Your task to perform on an android device: Go to Android settings Image 0: 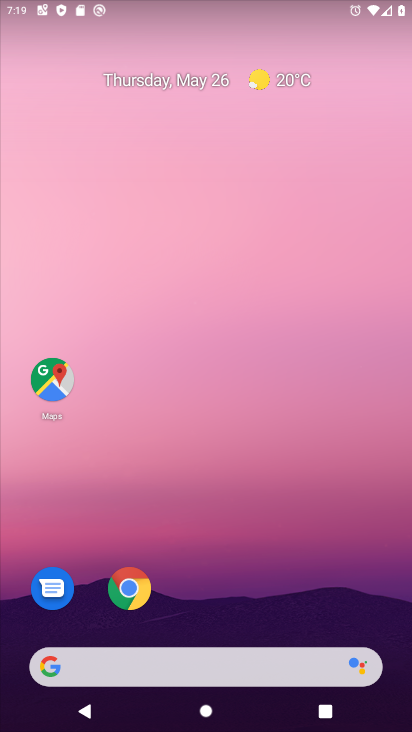
Step 0: drag from (321, 620) to (309, 12)
Your task to perform on an android device: Go to Android settings Image 1: 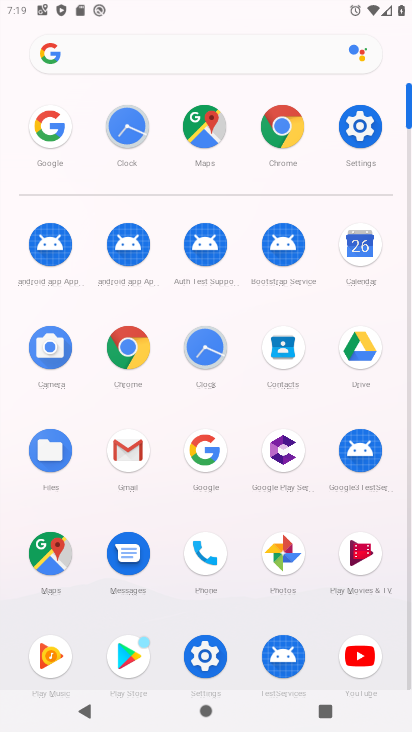
Step 1: click (371, 110)
Your task to perform on an android device: Go to Android settings Image 2: 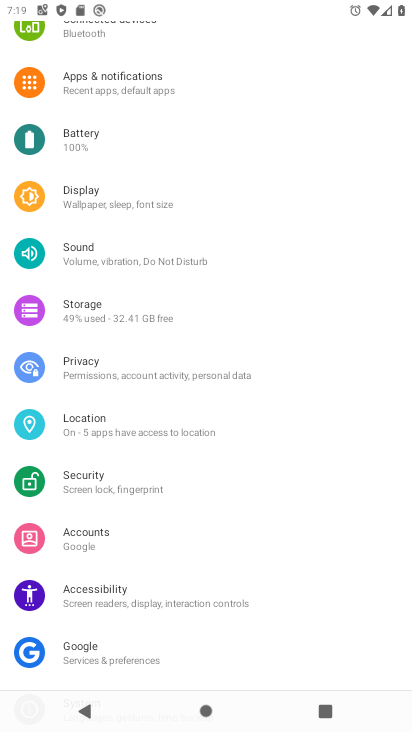
Step 2: drag from (209, 630) to (284, 49)
Your task to perform on an android device: Go to Android settings Image 3: 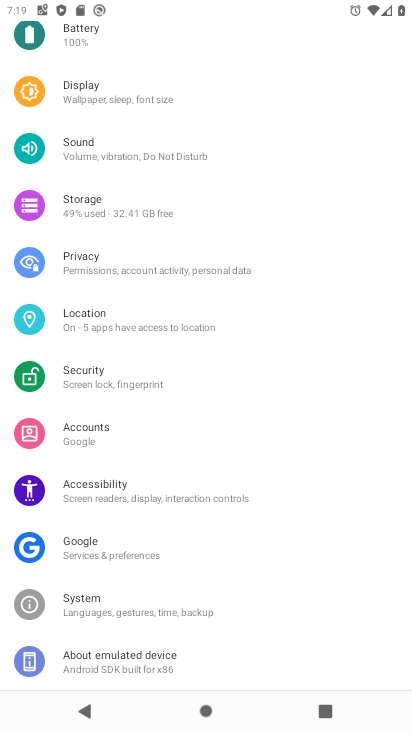
Step 3: click (99, 668)
Your task to perform on an android device: Go to Android settings Image 4: 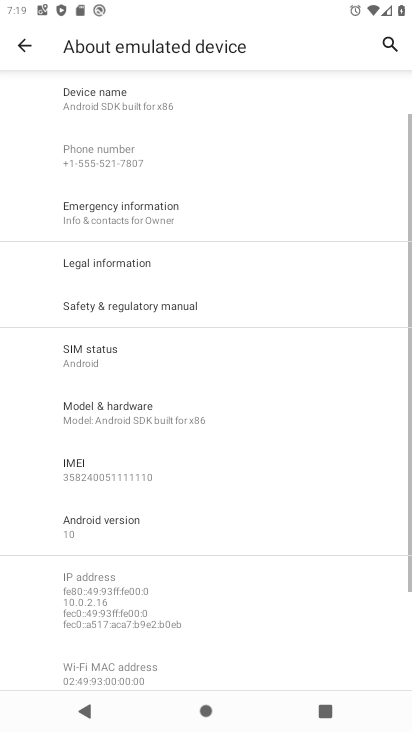
Step 4: click (123, 520)
Your task to perform on an android device: Go to Android settings Image 5: 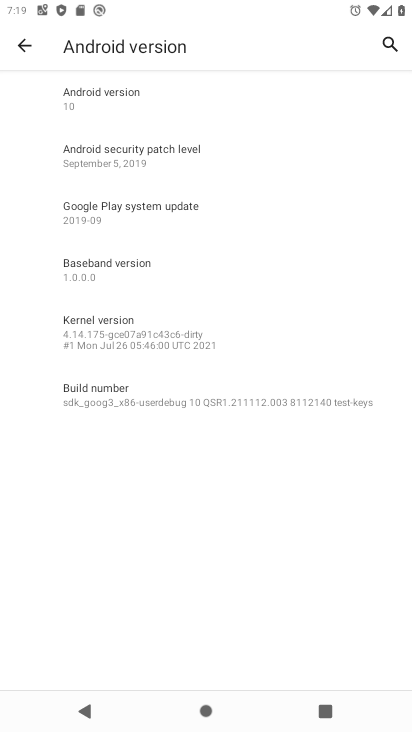
Step 5: task complete